Your task to perform on an android device: turn on javascript in the chrome app Image 0: 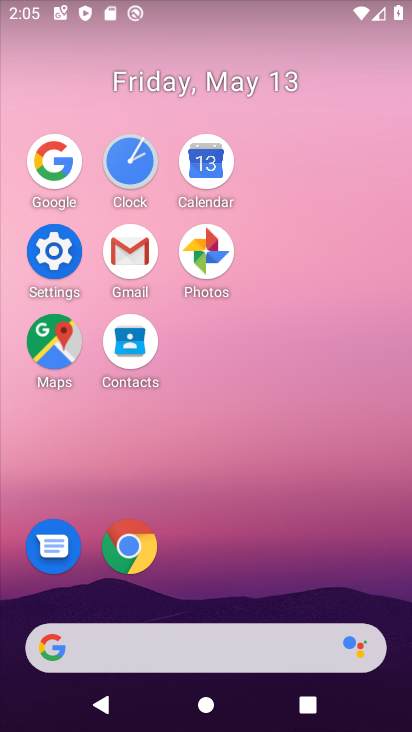
Step 0: click (115, 574)
Your task to perform on an android device: turn on javascript in the chrome app Image 1: 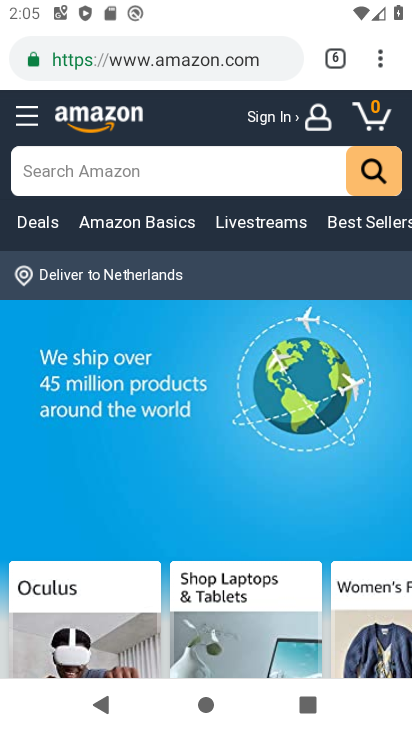
Step 1: click (375, 69)
Your task to perform on an android device: turn on javascript in the chrome app Image 2: 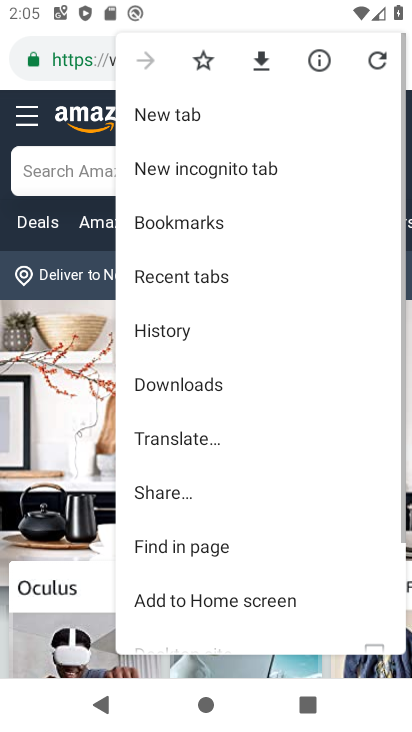
Step 2: drag from (218, 534) to (273, 176)
Your task to perform on an android device: turn on javascript in the chrome app Image 3: 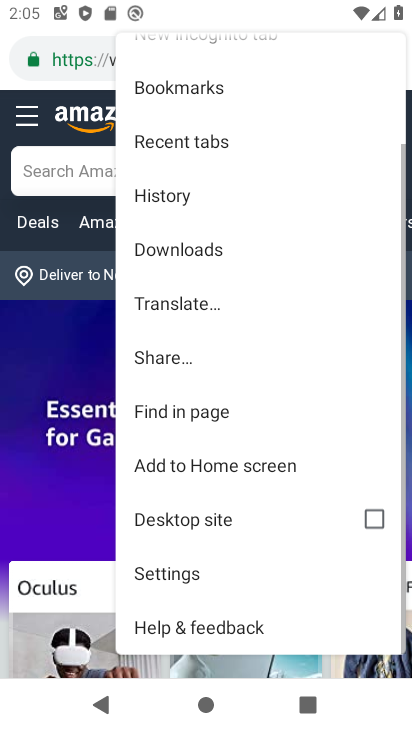
Step 3: click (208, 567)
Your task to perform on an android device: turn on javascript in the chrome app Image 4: 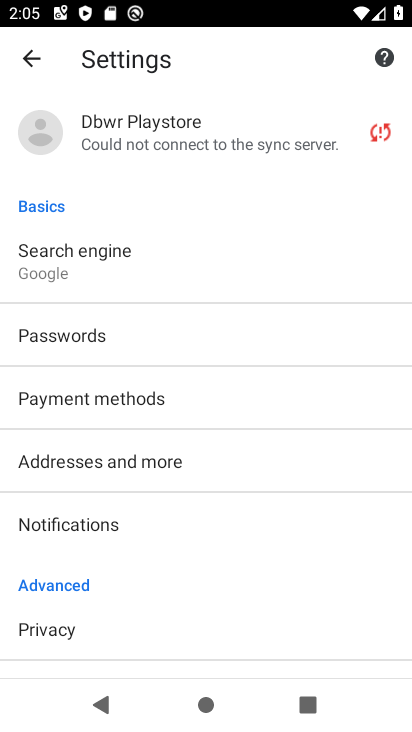
Step 4: drag from (208, 567) to (262, 143)
Your task to perform on an android device: turn on javascript in the chrome app Image 5: 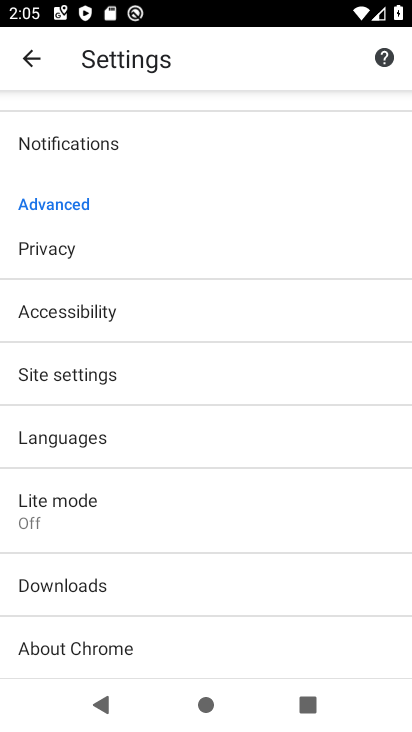
Step 5: click (119, 373)
Your task to perform on an android device: turn on javascript in the chrome app Image 6: 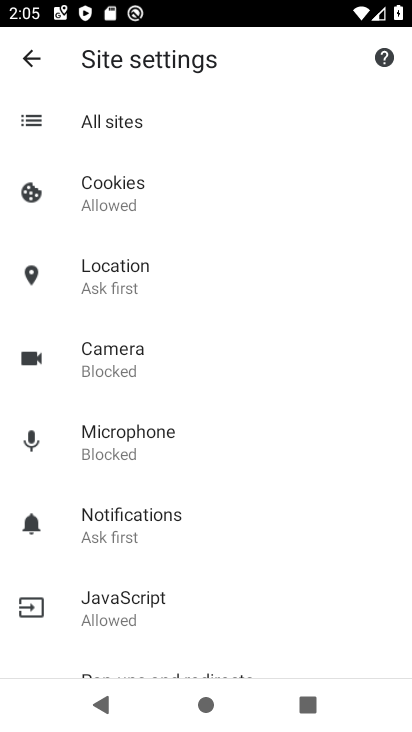
Step 6: click (148, 610)
Your task to perform on an android device: turn on javascript in the chrome app Image 7: 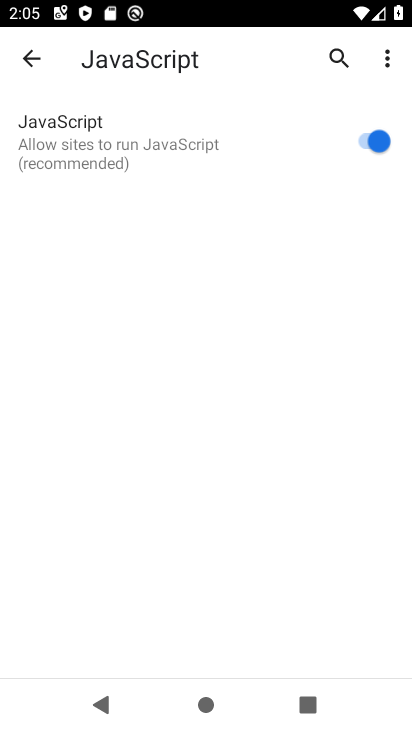
Step 7: task complete